Your task to perform on an android device: Go to calendar. Show me events next week Image 0: 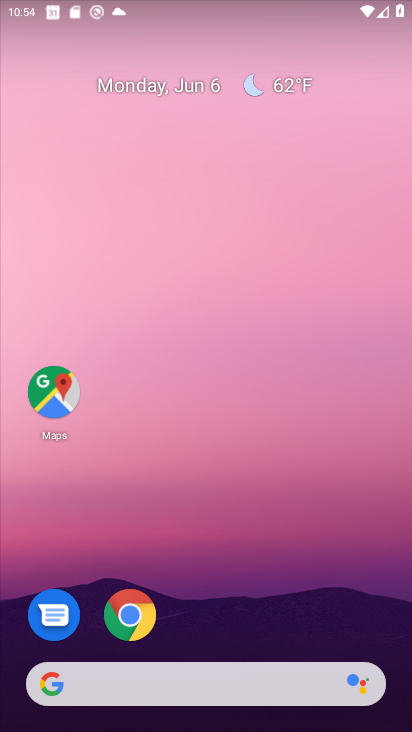
Step 0: drag from (248, 697) to (140, 156)
Your task to perform on an android device: Go to calendar. Show me events next week Image 1: 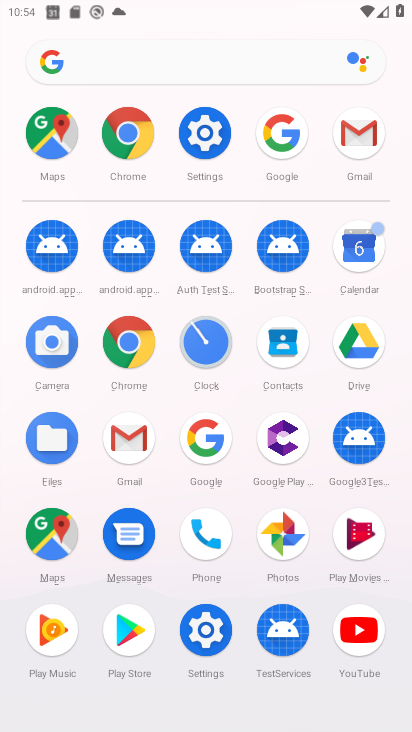
Step 1: click (349, 257)
Your task to perform on an android device: Go to calendar. Show me events next week Image 2: 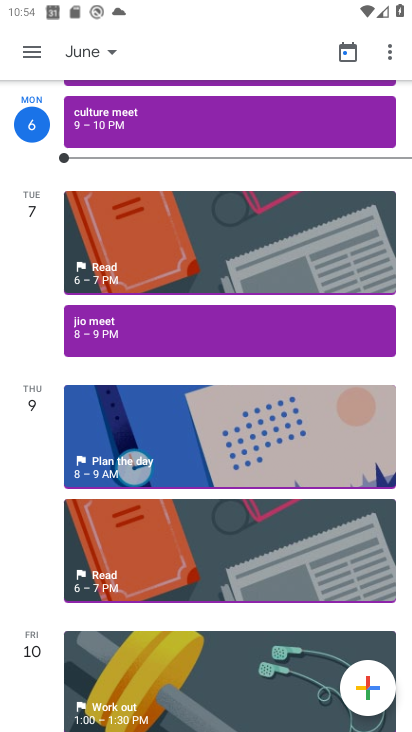
Step 2: click (108, 44)
Your task to perform on an android device: Go to calendar. Show me events next week Image 3: 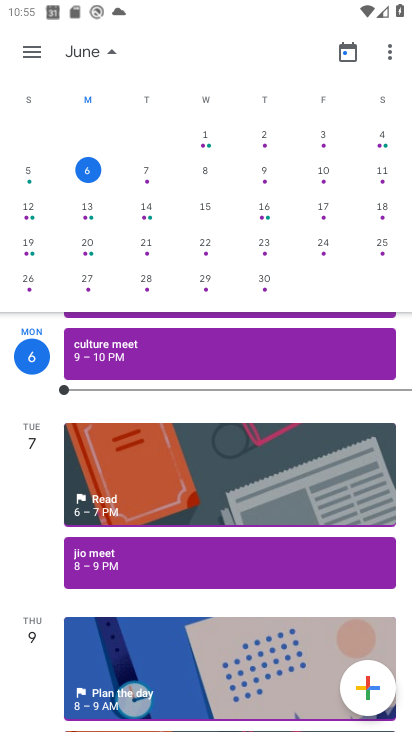
Step 3: click (147, 206)
Your task to perform on an android device: Go to calendar. Show me events next week Image 4: 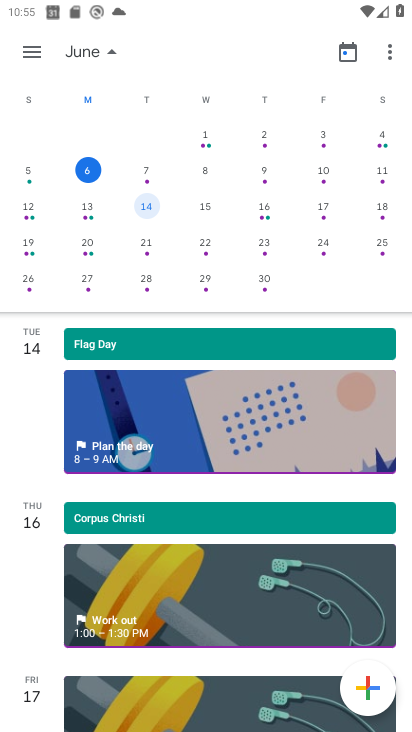
Step 4: click (147, 206)
Your task to perform on an android device: Go to calendar. Show me events next week Image 5: 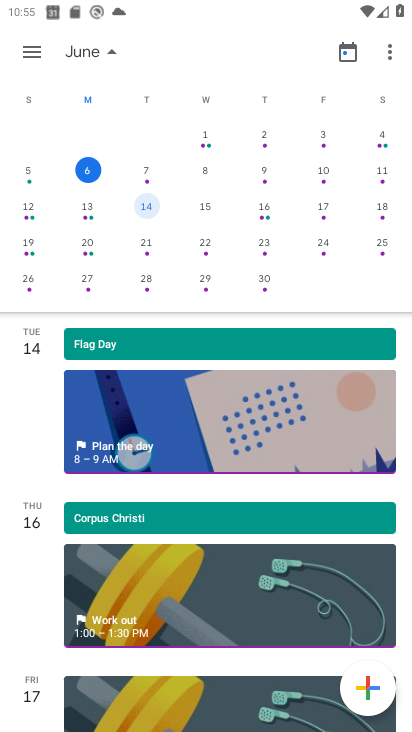
Step 5: click (146, 207)
Your task to perform on an android device: Go to calendar. Show me events next week Image 6: 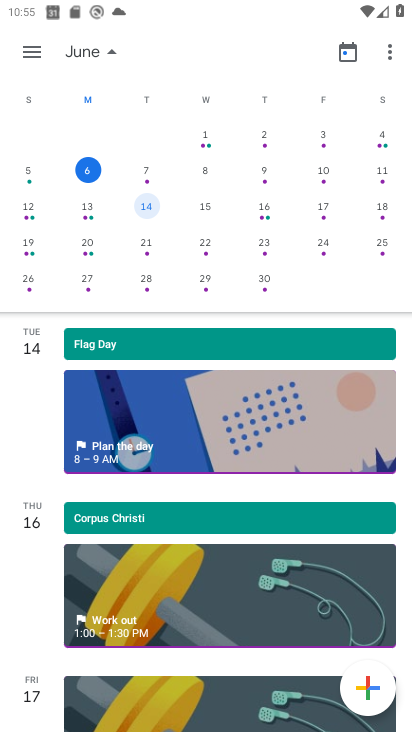
Step 6: click (144, 206)
Your task to perform on an android device: Go to calendar. Show me events next week Image 7: 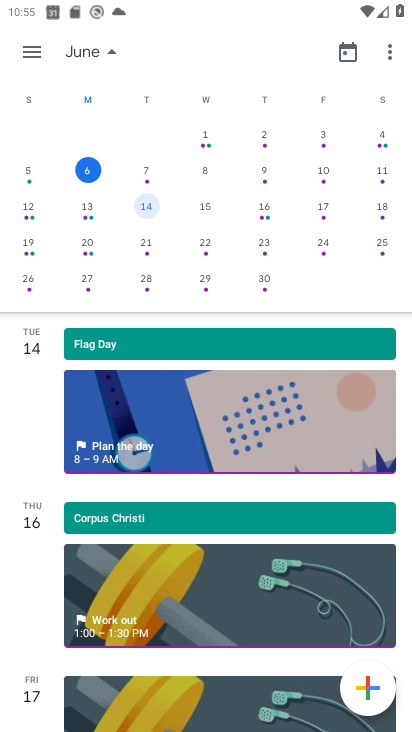
Step 7: click (148, 202)
Your task to perform on an android device: Go to calendar. Show me events next week Image 8: 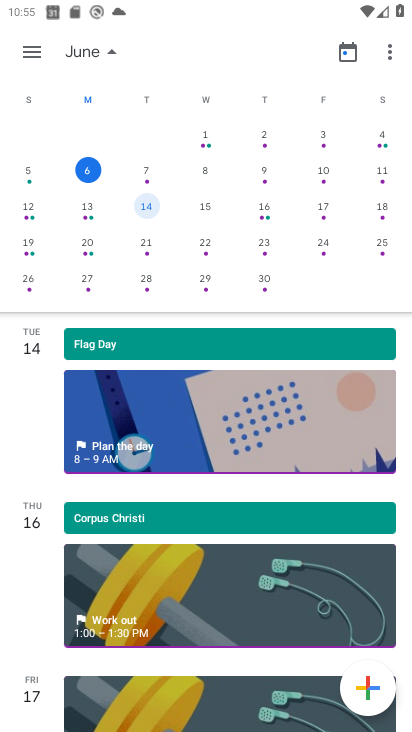
Step 8: click (149, 199)
Your task to perform on an android device: Go to calendar. Show me events next week Image 9: 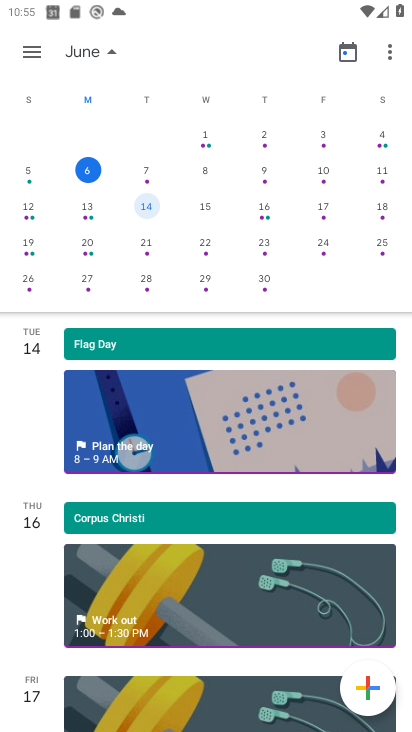
Step 9: task complete